Your task to perform on an android device: Toggle the flashlight Image 0: 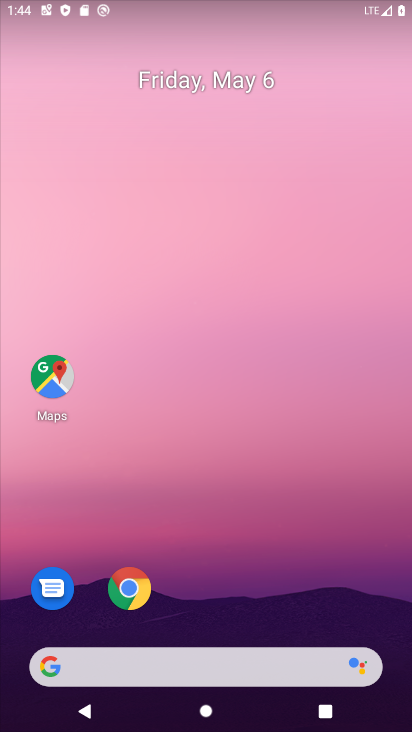
Step 0: drag from (359, 577) to (255, 54)
Your task to perform on an android device: Toggle the flashlight Image 1: 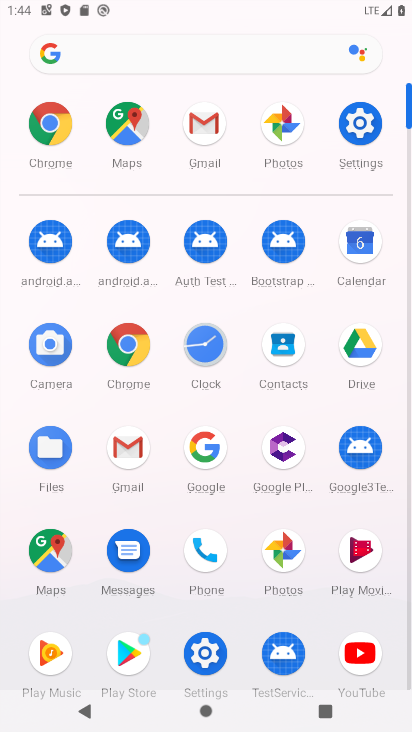
Step 1: click (201, 650)
Your task to perform on an android device: Toggle the flashlight Image 2: 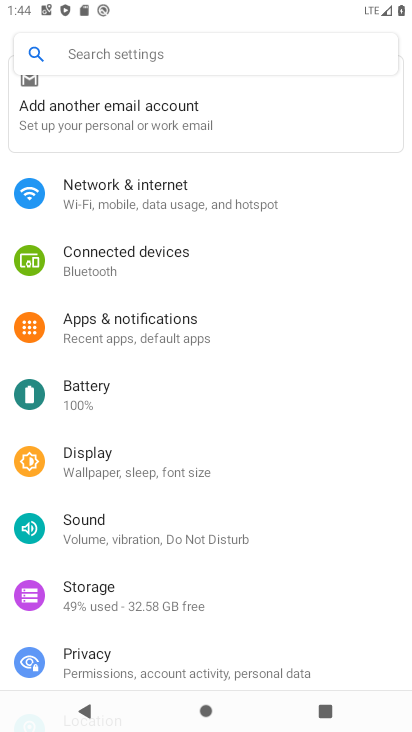
Step 2: click (135, 55)
Your task to perform on an android device: Toggle the flashlight Image 3: 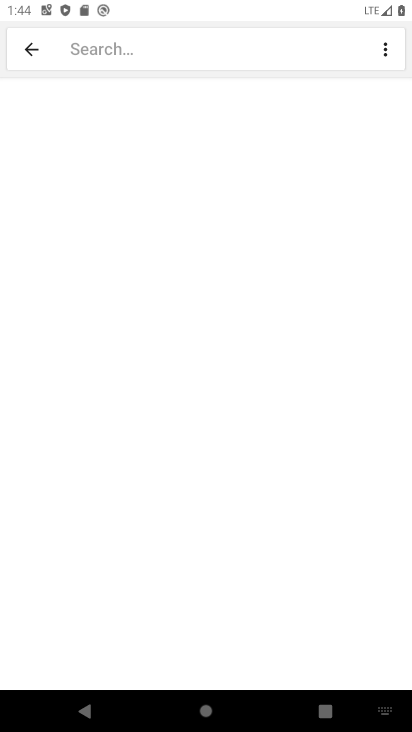
Step 3: type "flashlight"
Your task to perform on an android device: Toggle the flashlight Image 4: 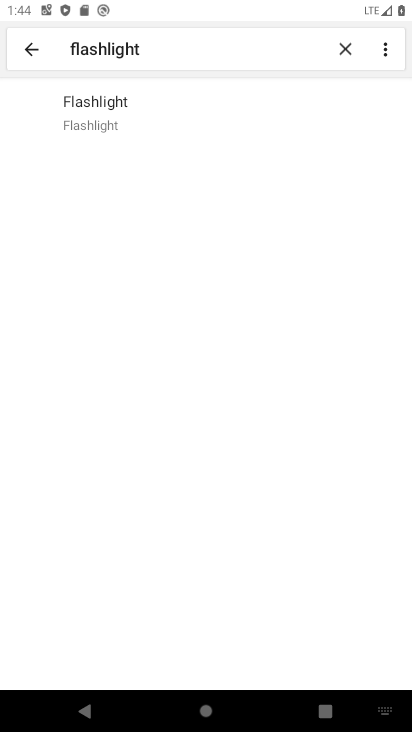
Step 4: click (100, 112)
Your task to perform on an android device: Toggle the flashlight Image 5: 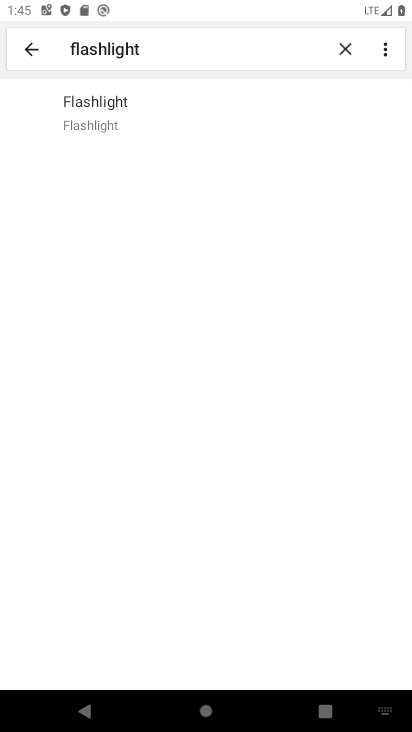
Step 5: task complete